Your task to perform on an android device: turn off notifications settings in the gmail app Image 0: 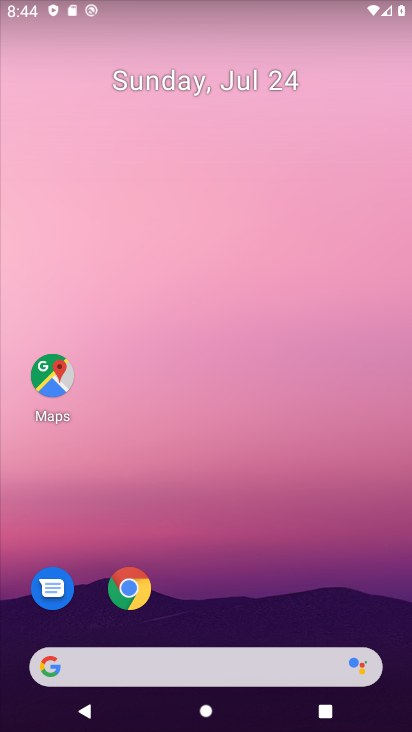
Step 0: drag from (179, 507) to (244, 19)
Your task to perform on an android device: turn off notifications settings in the gmail app Image 1: 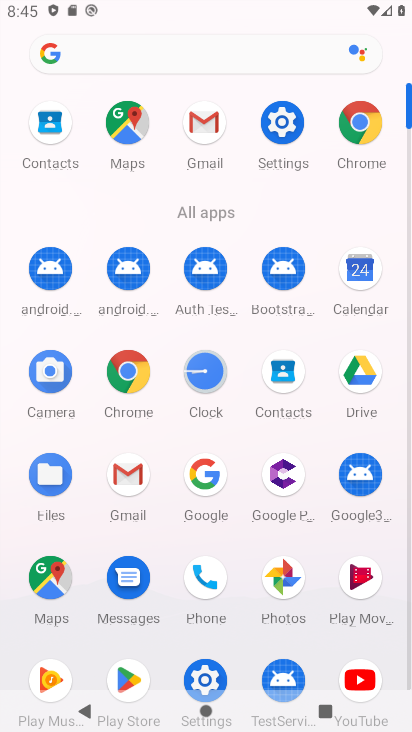
Step 1: click (208, 129)
Your task to perform on an android device: turn off notifications settings in the gmail app Image 2: 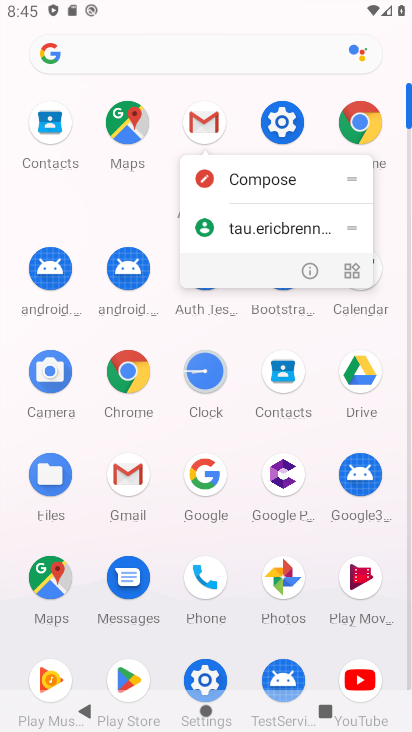
Step 2: click (307, 271)
Your task to perform on an android device: turn off notifications settings in the gmail app Image 3: 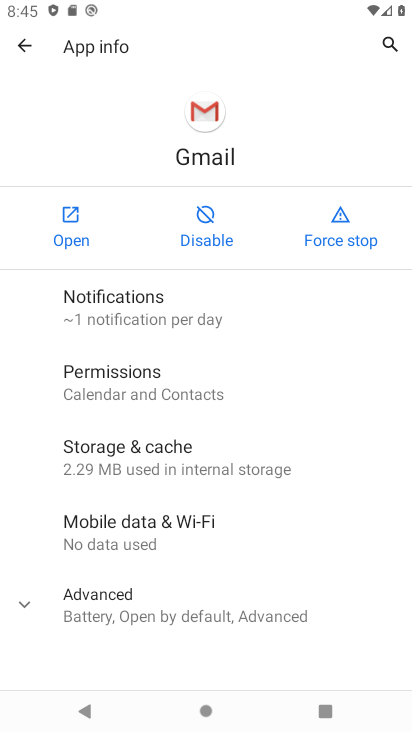
Step 3: click (122, 309)
Your task to perform on an android device: turn off notifications settings in the gmail app Image 4: 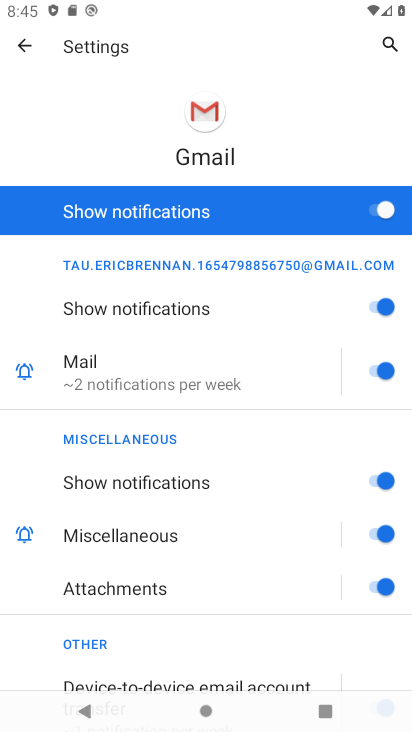
Step 4: click (384, 209)
Your task to perform on an android device: turn off notifications settings in the gmail app Image 5: 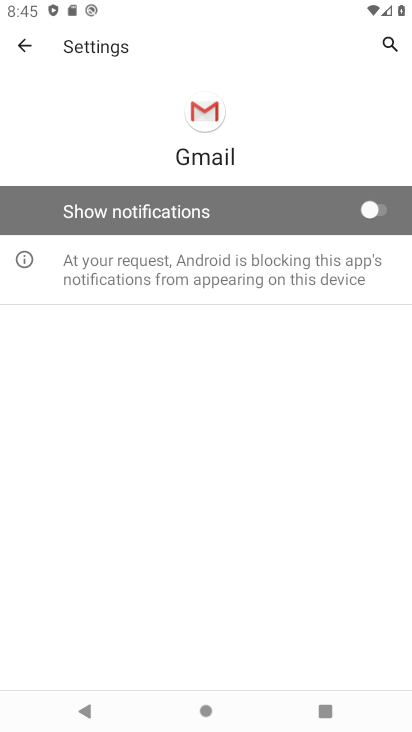
Step 5: task complete